Your task to perform on an android device: What's the weather today? Image 0: 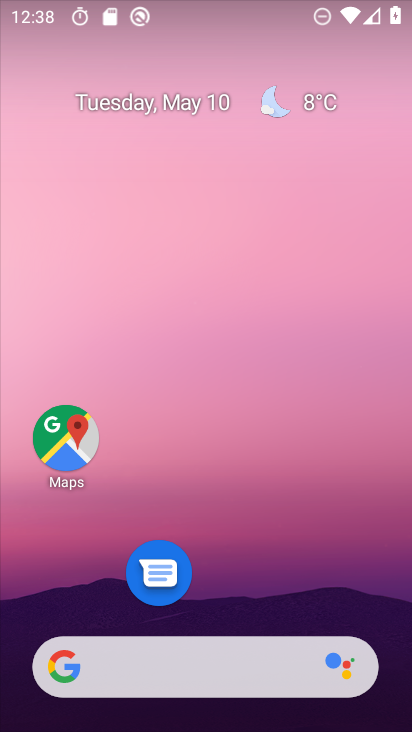
Step 0: click (316, 100)
Your task to perform on an android device: What's the weather today? Image 1: 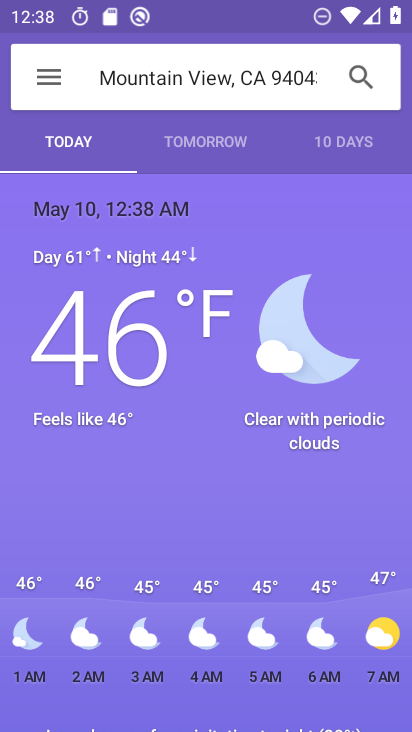
Step 1: task complete